Your task to perform on an android device: turn on location history Image 0: 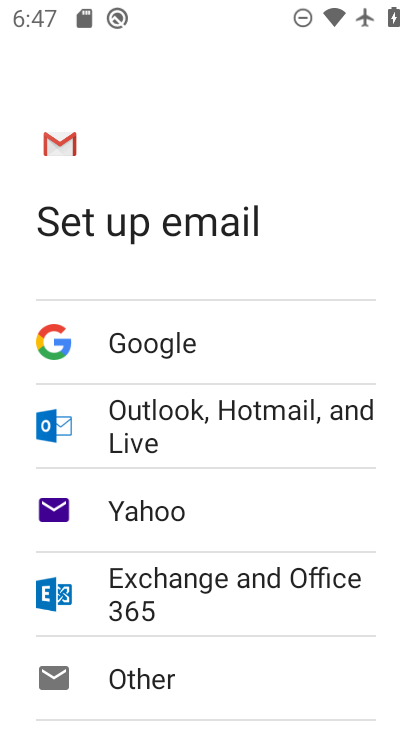
Step 0: press home button
Your task to perform on an android device: turn on location history Image 1: 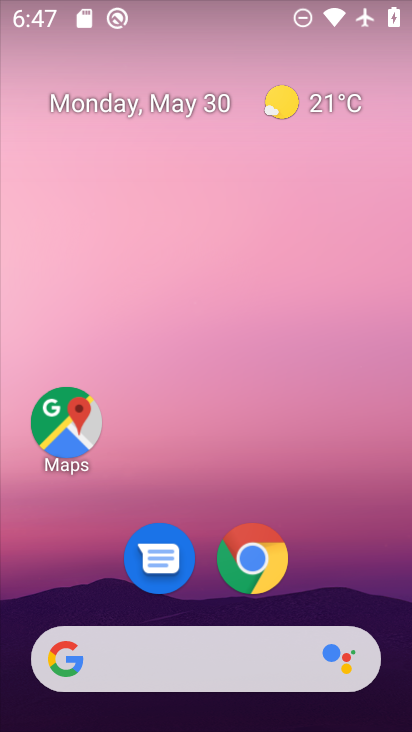
Step 1: click (60, 434)
Your task to perform on an android device: turn on location history Image 2: 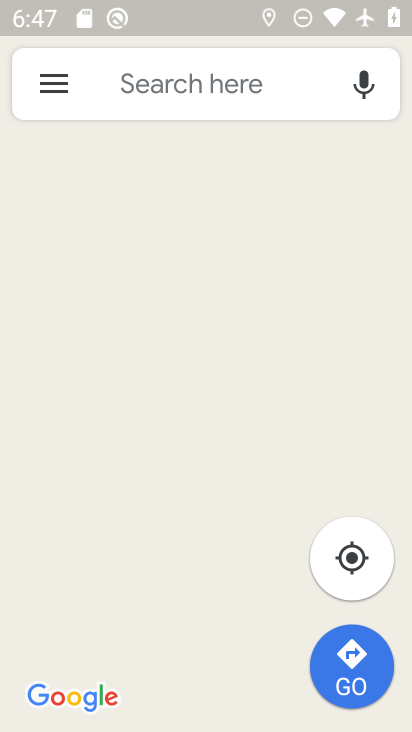
Step 2: click (50, 87)
Your task to perform on an android device: turn on location history Image 3: 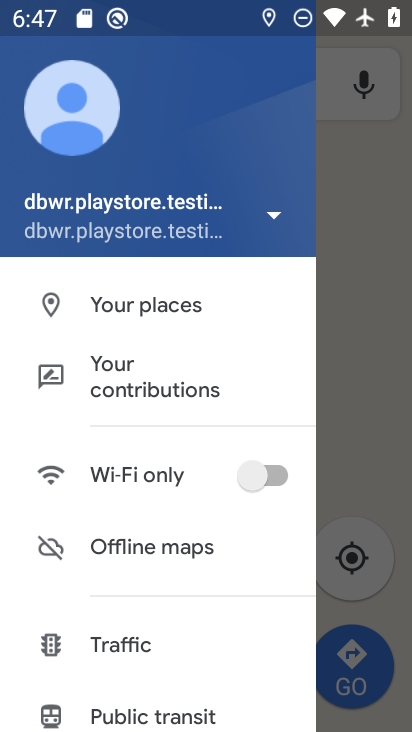
Step 3: click (141, 371)
Your task to perform on an android device: turn on location history Image 4: 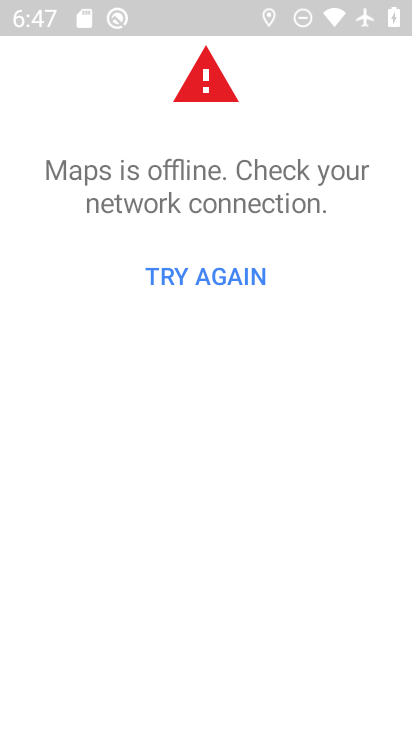
Step 4: task complete